Your task to perform on an android device: Open calendar and show me the third week of next month Image 0: 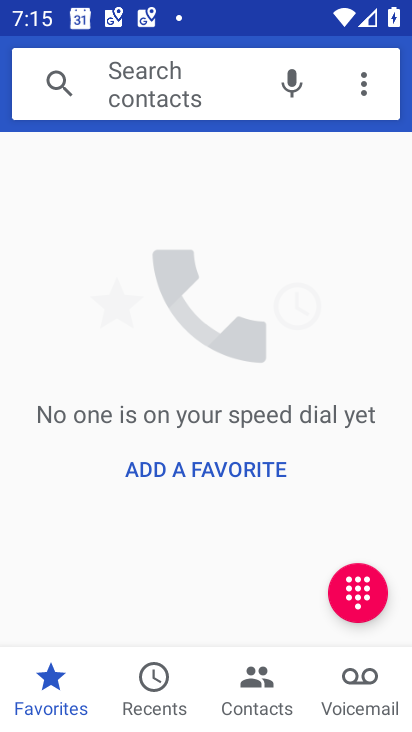
Step 0: press home button
Your task to perform on an android device: Open calendar and show me the third week of next month Image 1: 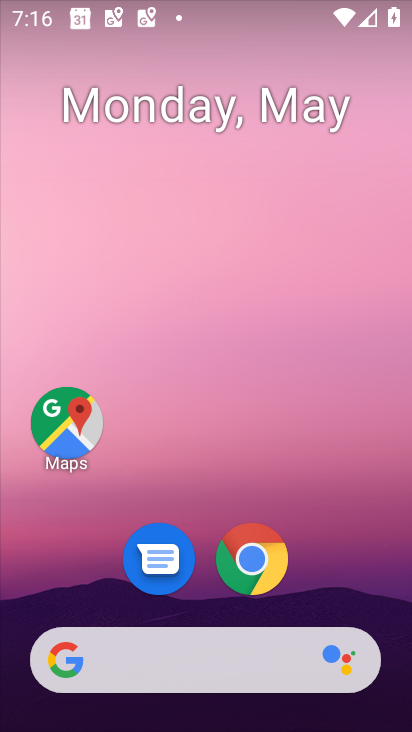
Step 1: drag from (380, 633) to (301, 17)
Your task to perform on an android device: Open calendar and show me the third week of next month Image 2: 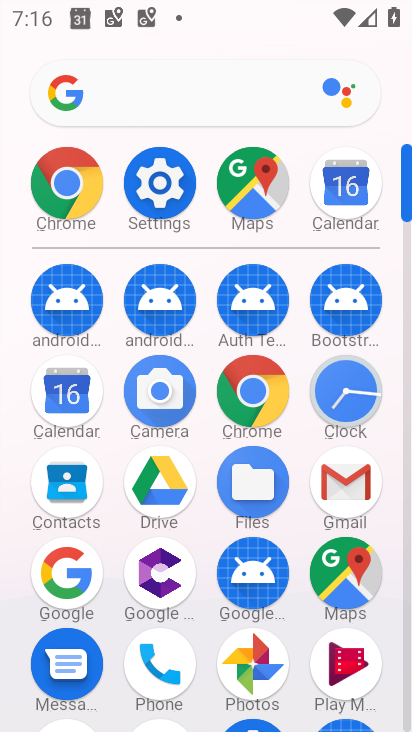
Step 2: click (58, 408)
Your task to perform on an android device: Open calendar and show me the third week of next month Image 3: 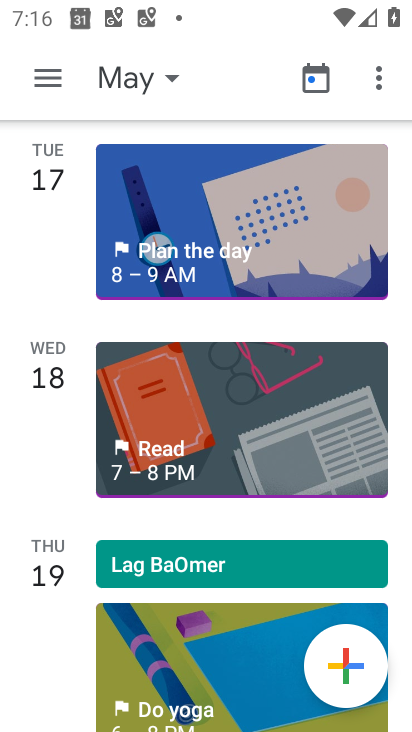
Step 3: click (116, 80)
Your task to perform on an android device: Open calendar and show me the third week of next month Image 4: 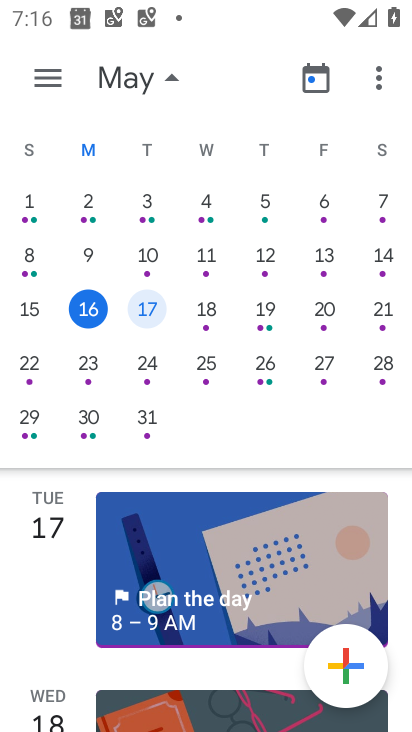
Step 4: drag from (319, 259) to (29, 152)
Your task to perform on an android device: Open calendar and show me the third week of next month Image 5: 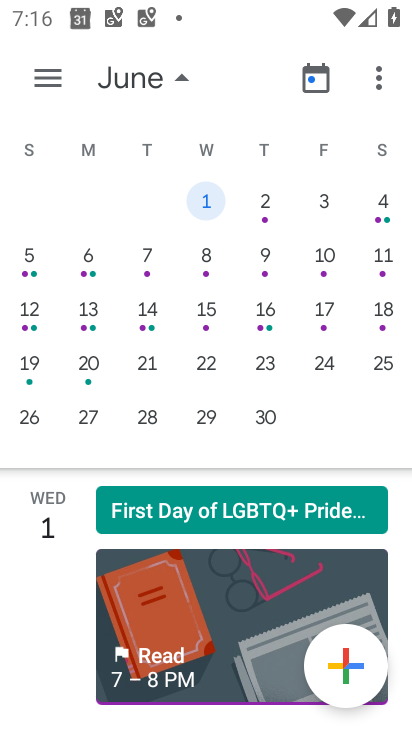
Step 5: click (35, 377)
Your task to perform on an android device: Open calendar and show me the third week of next month Image 6: 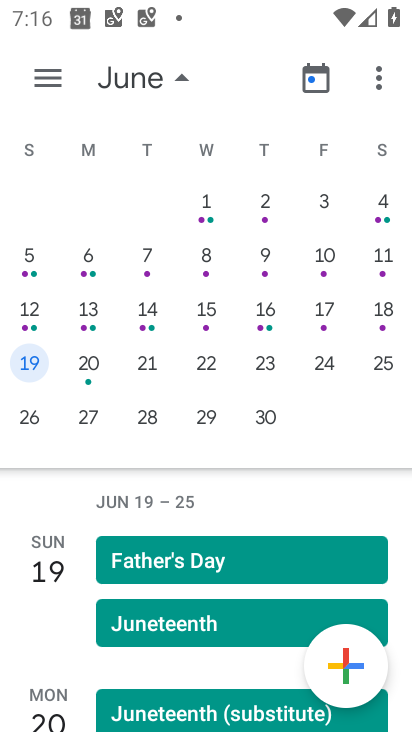
Step 6: task complete